Your task to perform on an android device: turn pop-ups on in chrome Image 0: 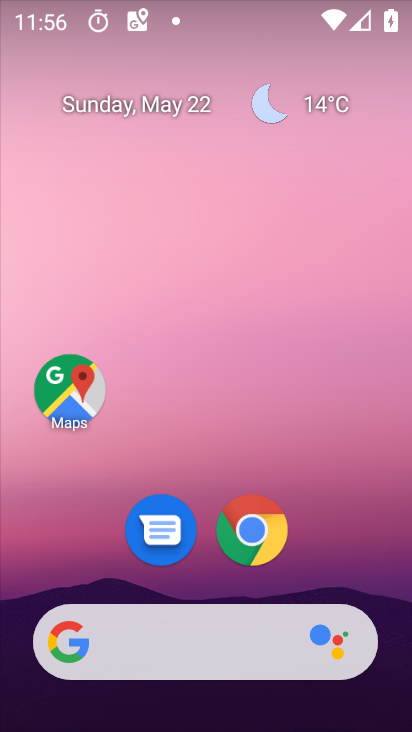
Step 0: click (252, 533)
Your task to perform on an android device: turn pop-ups on in chrome Image 1: 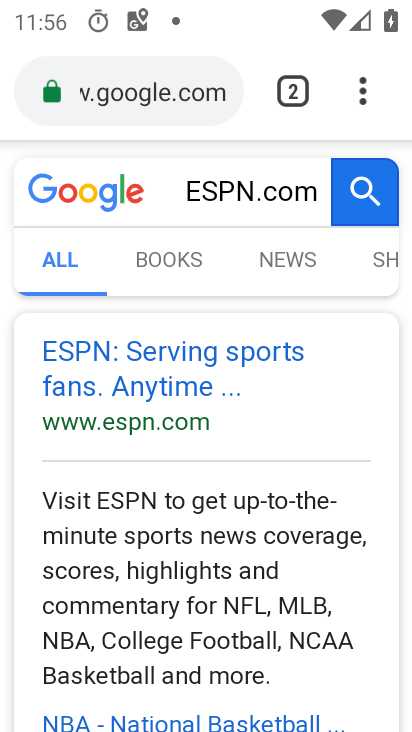
Step 1: click (360, 90)
Your task to perform on an android device: turn pop-ups on in chrome Image 2: 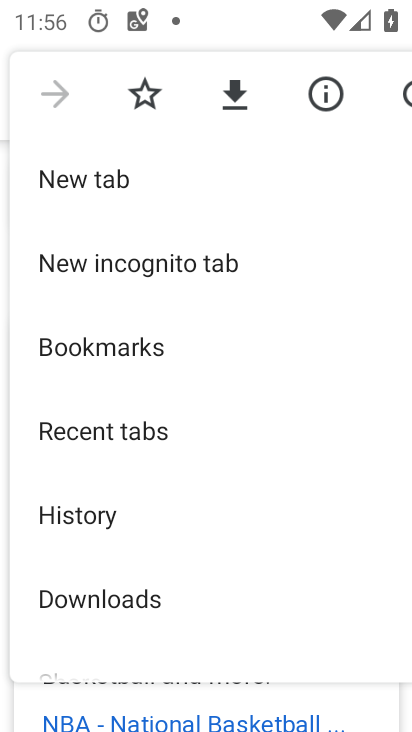
Step 2: drag from (242, 646) to (272, 287)
Your task to perform on an android device: turn pop-ups on in chrome Image 3: 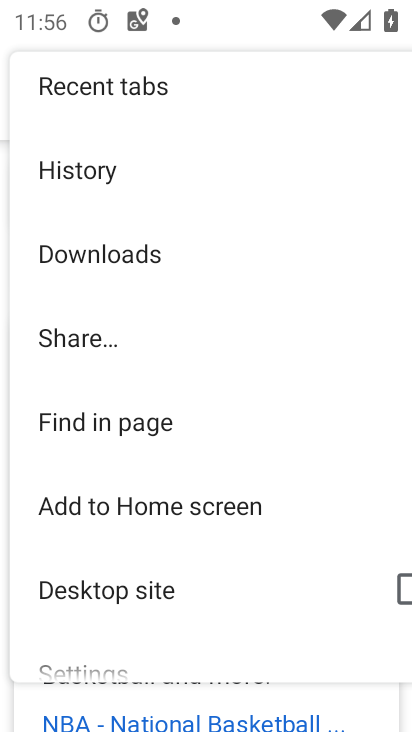
Step 3: drag from (257, 545) to (286, 300)
Your task to perform on an android device: turn pop-ups on in chrome Image 4: 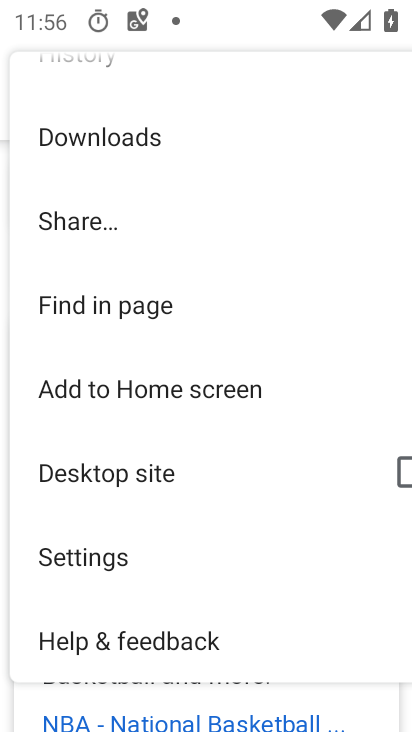
Step 4: drag from (292, 595) to (242, 288)
Your task to perform on an android device: turn pop-ups on in chrome Image 5: 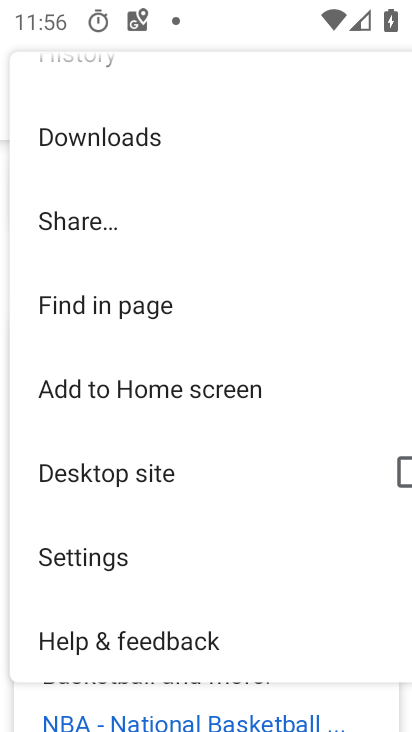
Step 5: click (106, 561)
Your task to perform on an android device: turn pop-ups on in chrome Image 6: 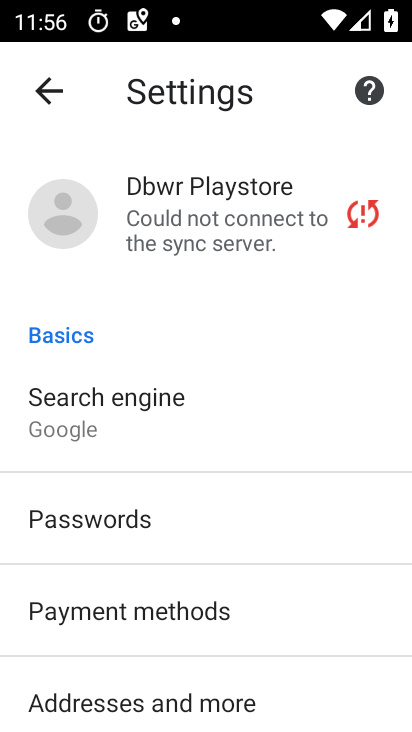
Step 6: drag from (291, 700) to (292, 290)
Your task to perform on an android device: turn pop-ups on in chrome Image 7: 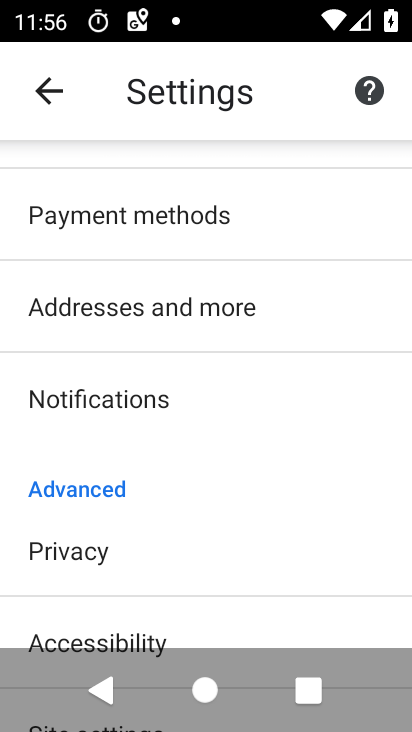
Step 7: drag from (278, 589) to (288, 244)
Your task to perform on an android device: turn pop-ups on in chrome Image 8: 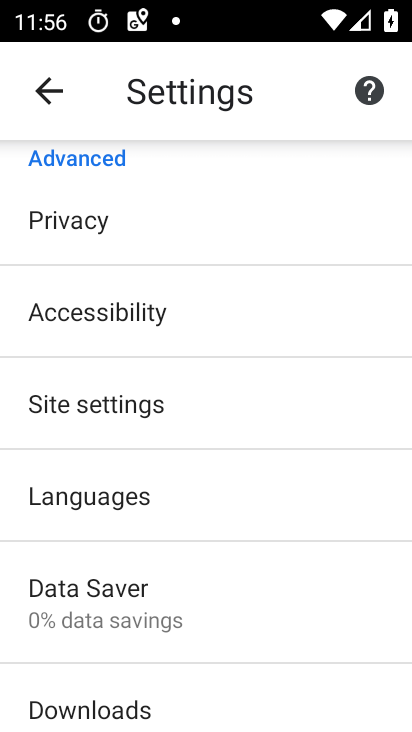
Step 8: drag from (288, 632) to (260, 371)
Your task to perform on an android device: turn pop-ups on in chrome Image 9: 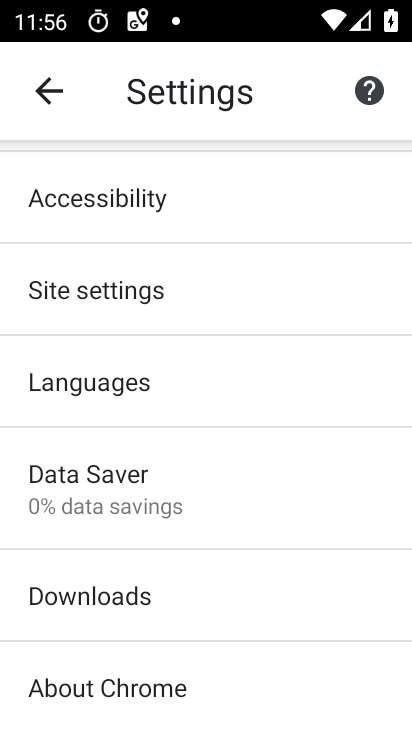
Step 9: click (85, 293)
Your task to perform on an android device: turn pop-ups on in chrome Image 10: 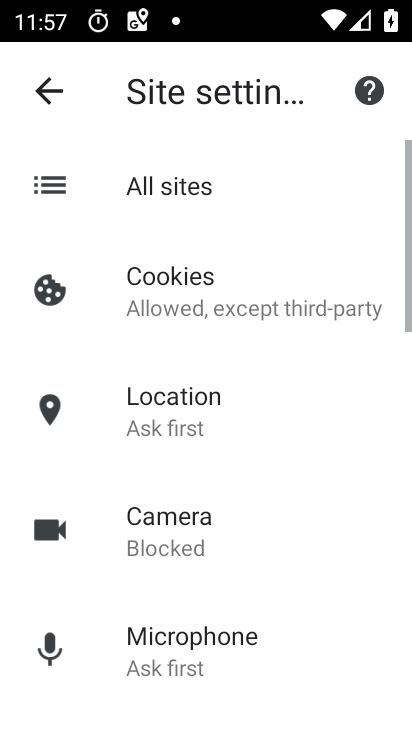
Step 10: drag from (276, 676) to (285, 297)
Your task to perform on an android device: turn pop-ups on in chrome Image 11: 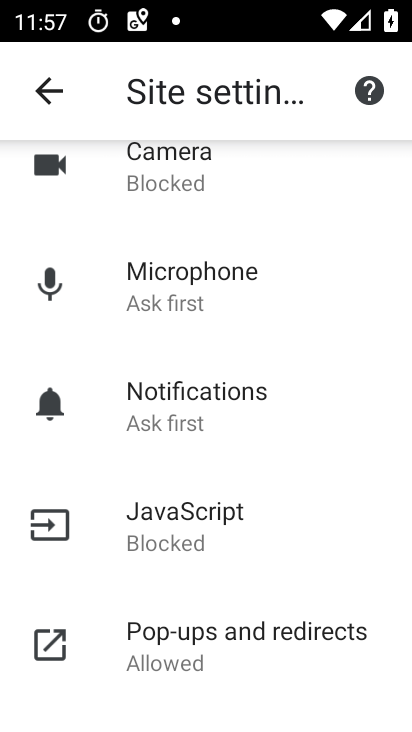
Step 11: drag from (306, 660) to (299, 357)
Your task to perform on an android device: turn pop-ups on in chrome Image 12: 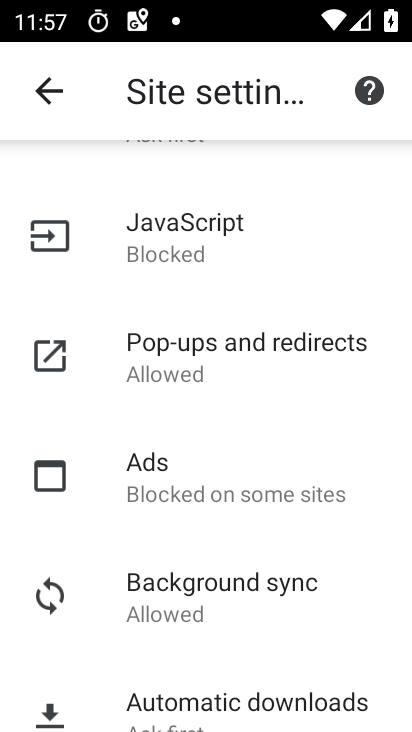
Step 12: click (256, 387)
Your task to perform on an android device: turn pop-ups on in chrome Image 13: 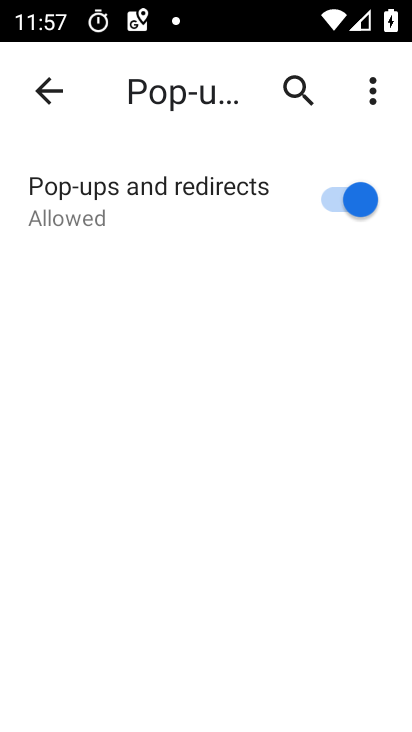
Step 13: task complete